Your task to perform on an android device: What is the recent news? Image 0: 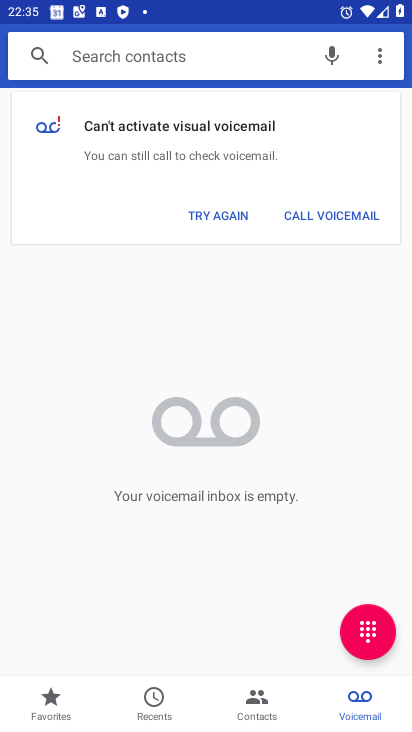
Step 0: press home button
Your task to perform on an android device: What is the recent news? Image 1: 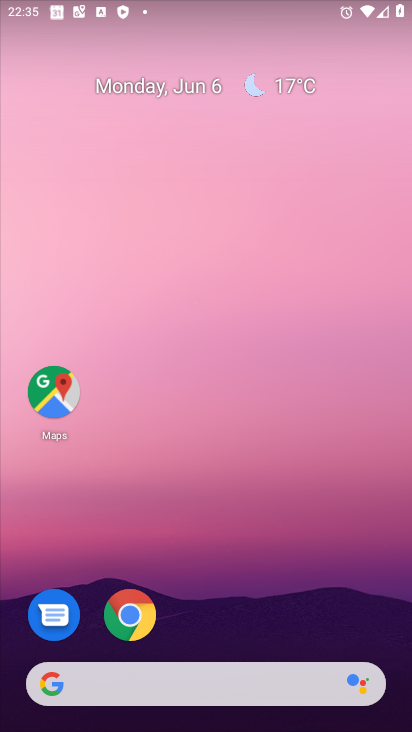
Step 1: task complete